Your task to perform on an android device: check storage Image 0: 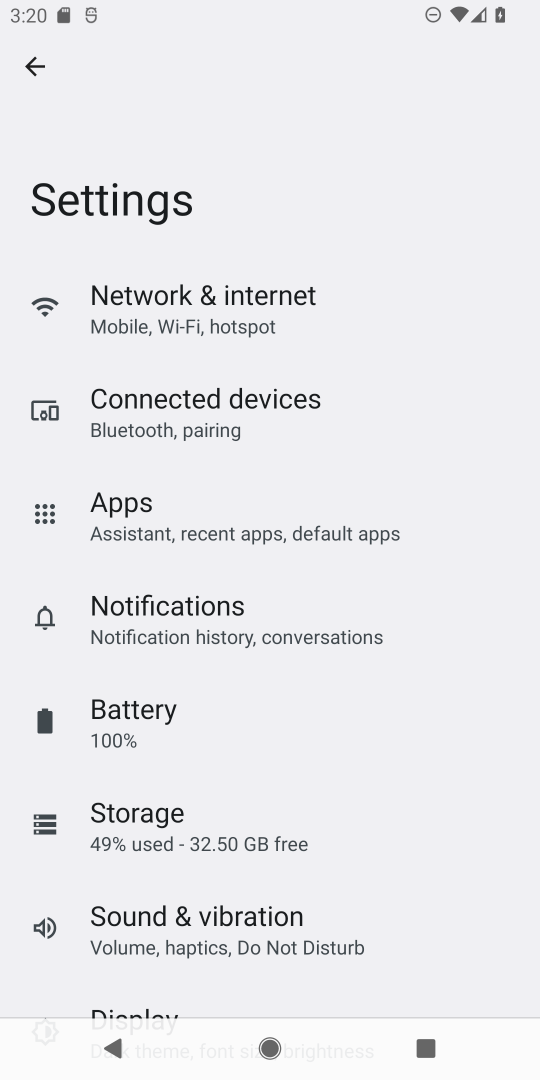
Step 0: click (401, 832)
Your task to perform on an android device: check storage Image 1: 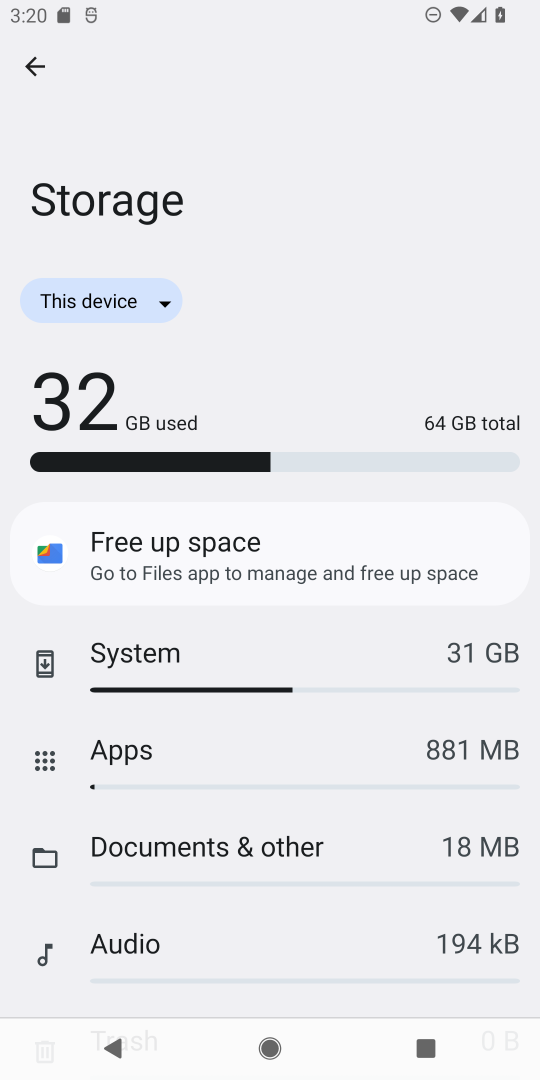
Step 1: task complete